Your task to perform on an android device: Set the phone to "Do not disturb". Image 0: 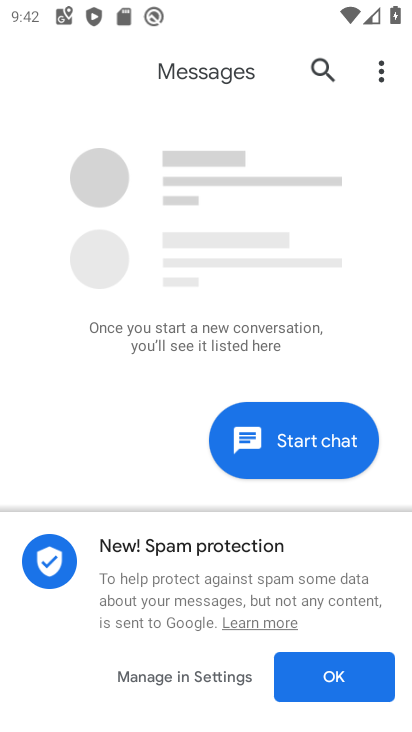
Step 0: drag from (253, 4) to (259, 495)
Your task to perform on an android device: Set the phone to "Do not disturb". Image 1: 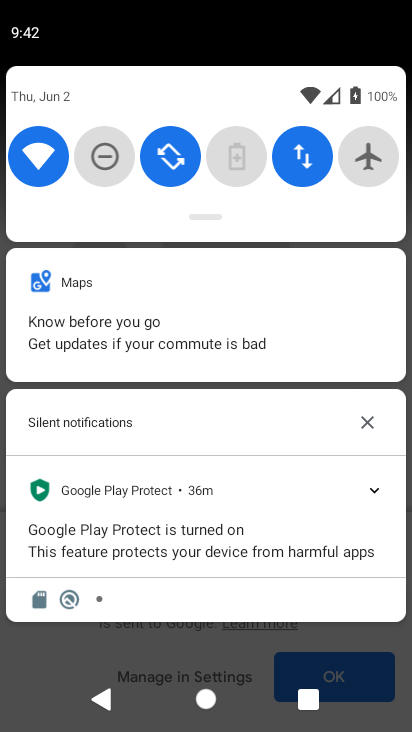
Step 1: click (98, 156)
Your task to perform on an android device: Set the phone to "Do not disturb". Image 2: 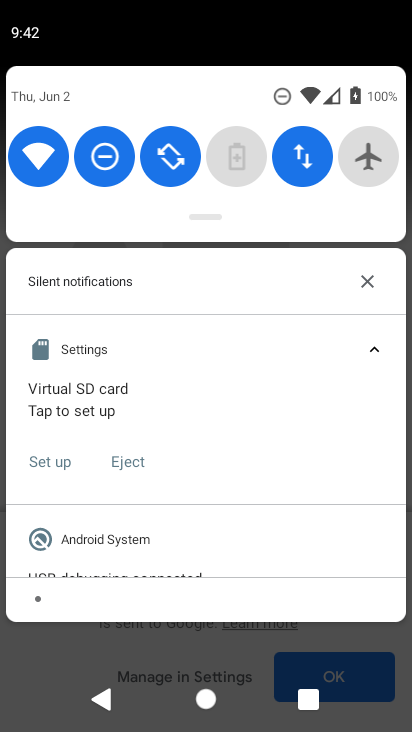
Step 2: task complete